Your task to perform on an android device: Go to wifi settings Image 0: 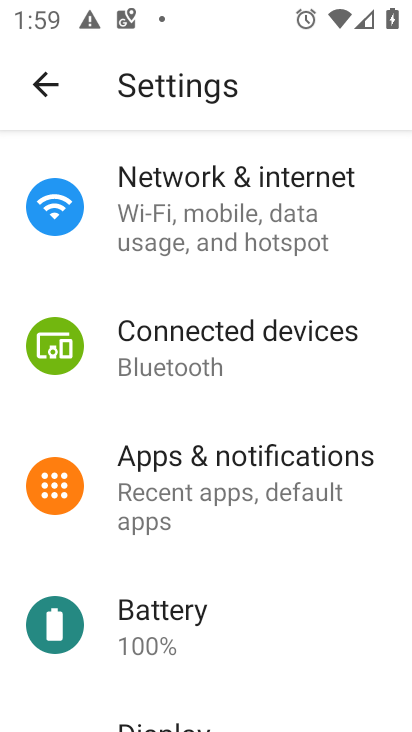
Step 0: click (227, 229)
Your task to perform on an android device: Go to wifi settings Image 1: 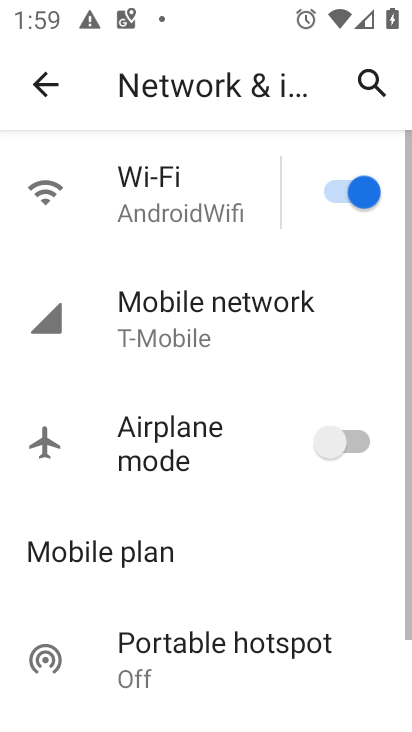
Step 1: click (187, 196)
Your task to perform on an android device: Go to wifi settings Image 2: 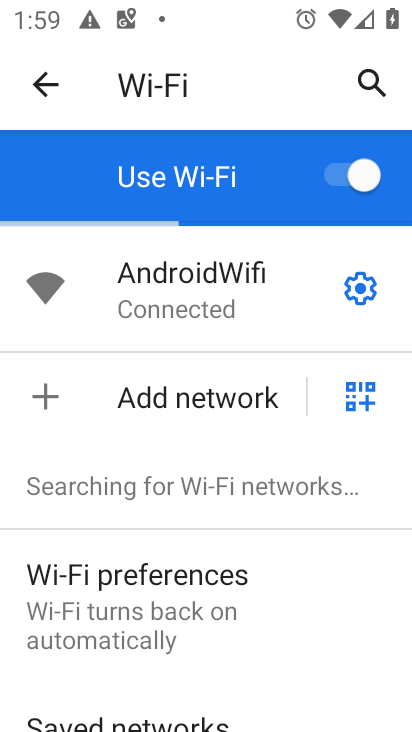
Step 2: click (342, 283)
Your task to perform on an android device: Go to wifi settings Image 3: 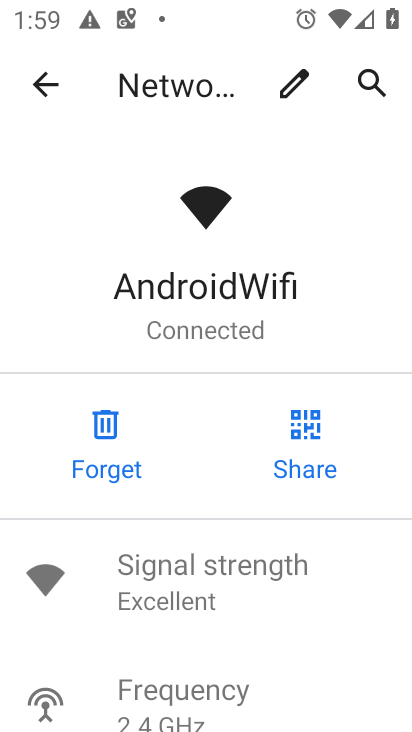
Step 3: task complete